Your task to perform on an android device: create a new album in the google photos Image 0: 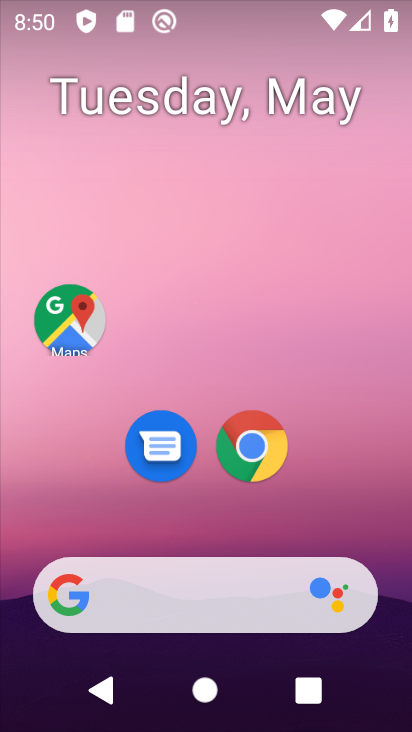
Step 0: drag from (398, 551) to (402, 196)
Your task to perform on an android device: create a new album in the google photos Image 1: 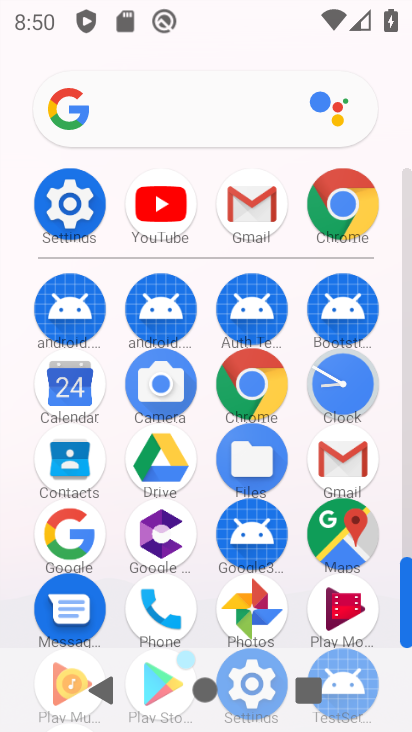
Step 1: click (256, 621)
Your task to perform on an android device: create a new album in the google photos Image 2: 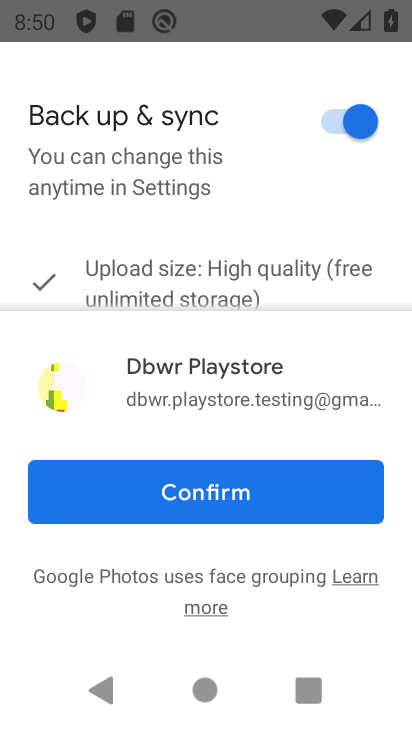
Step 2: click (310, 484)
Your task to perform on an android device: create a new album in the google photos Image 3: 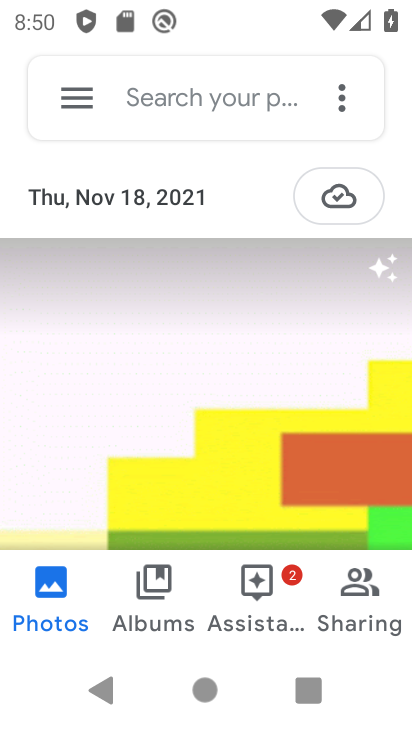
Step 3: click (343, 108)
Your task to perform on an android device: create a new album in the google photos Image 4: 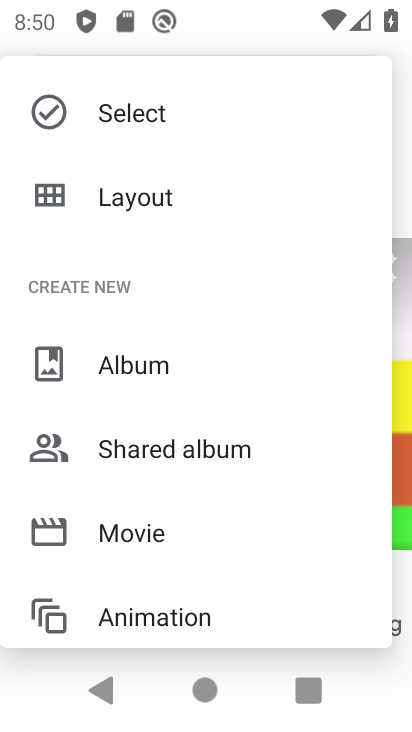
Step 4: click (153, 374)
Your task to perform on an android device: create a new album in the google photos Image 5: 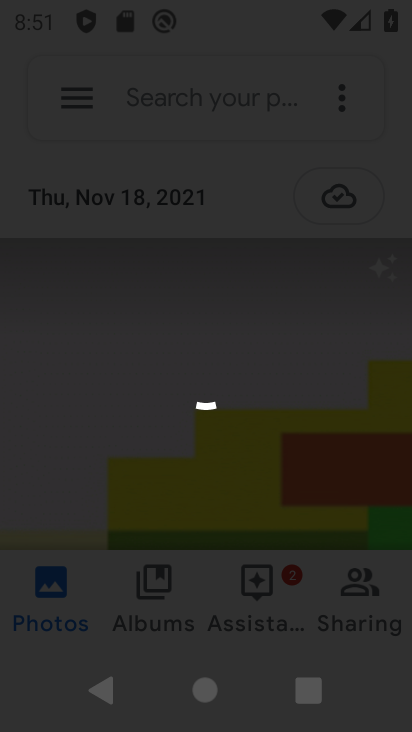
Step 5: task complete